Your task to perform on an android device: change the clock display to show seconds Image 0: 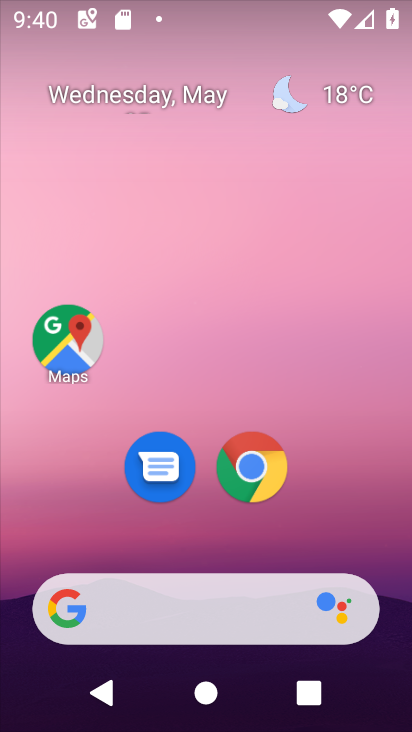
Step 0: drag from (367, 503) to (372, 77)
Your task to perform on an android device: change the clock display to show seconds Image 1: 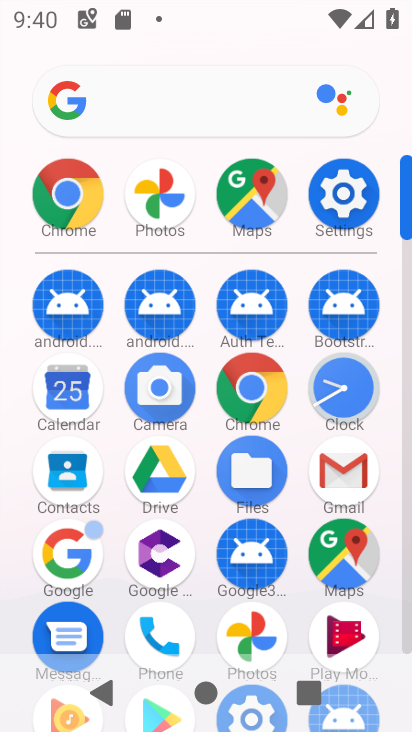
Step 1: click (326, 388)
Your task to perform on an android device: change the clock display to show seconds Image 2: 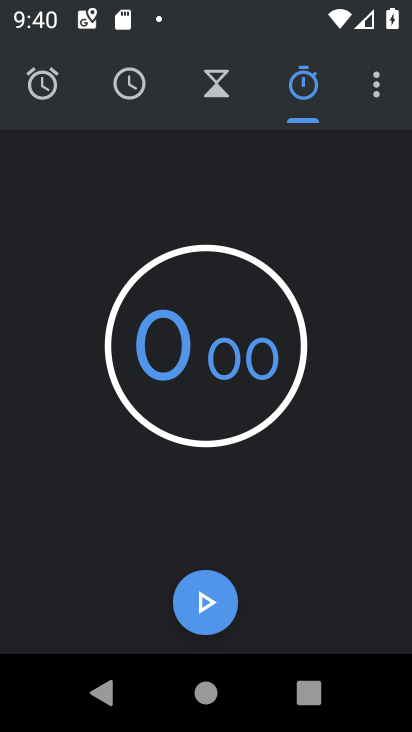
Step 2: click (368, 95)
Your task to perform on an android device: change the clock display to show seconds Image 3: 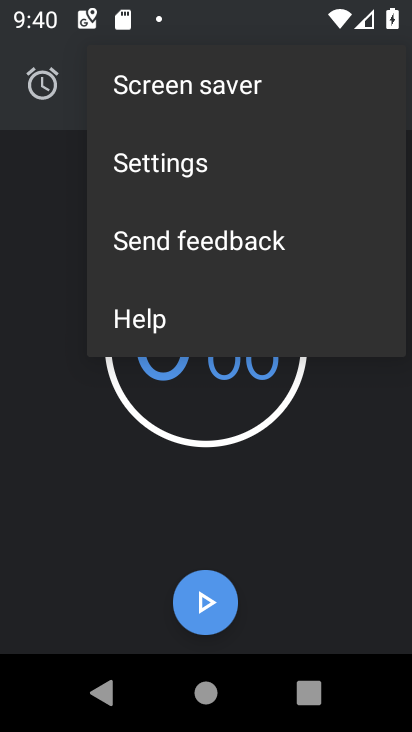
Step 3: click (191, 178)
Your task to perform on an android device: change the clock display to show seconds Image 4: 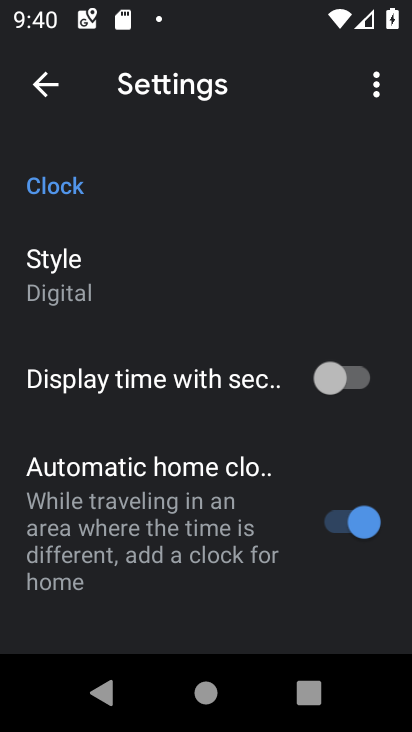
Step 4: click (352, 371)
Your task to perform on an android device: change the clock display to show seconds Image 5: 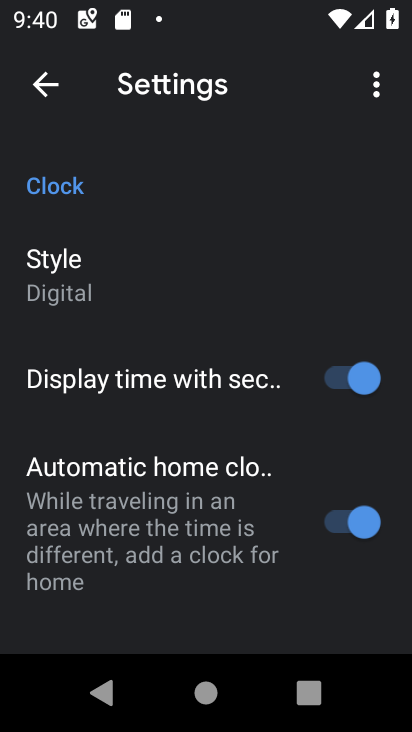
Step 5: task complete